Your task to perform on an android device: Open the stopwatch Image 0: 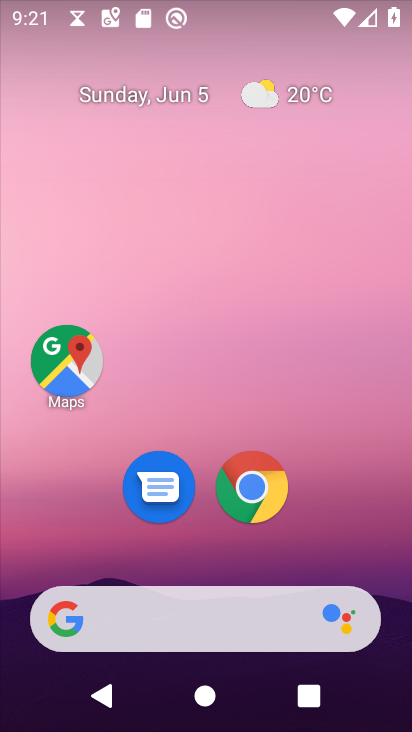
Step 0: drag from (288, 531) to (314, 220)
Your task to perform on an android device: Open the stopwatch Image 1: 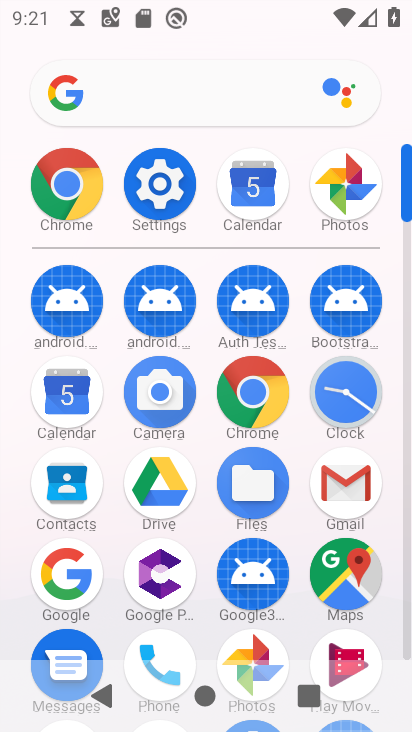
Step 1: click (358, 374)
Your task to perform on an android device: Open the stopwatch Image 2: 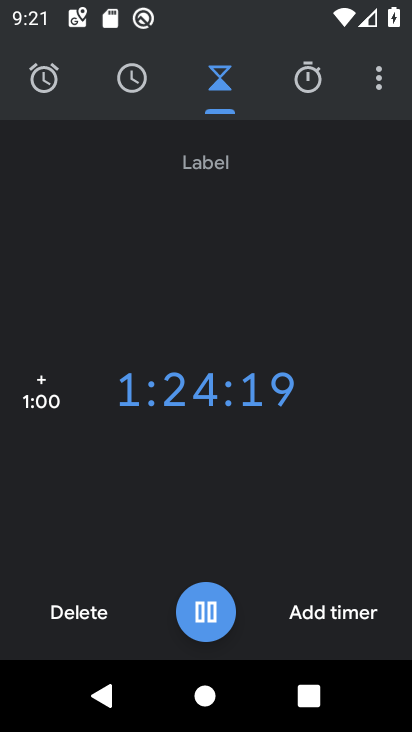
Step 2: click (301, 80)
Your task to perform on an android device: Open the stopwatch Image 3: 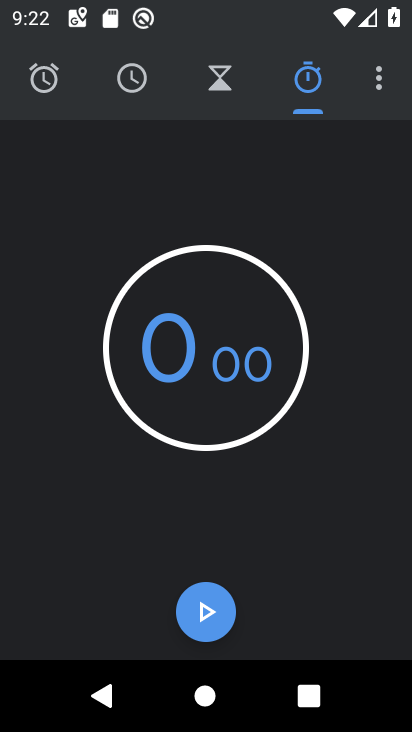
Step 3: task complete